Your task to perform on an android device: toggle javascript in the chrome app Image 0: 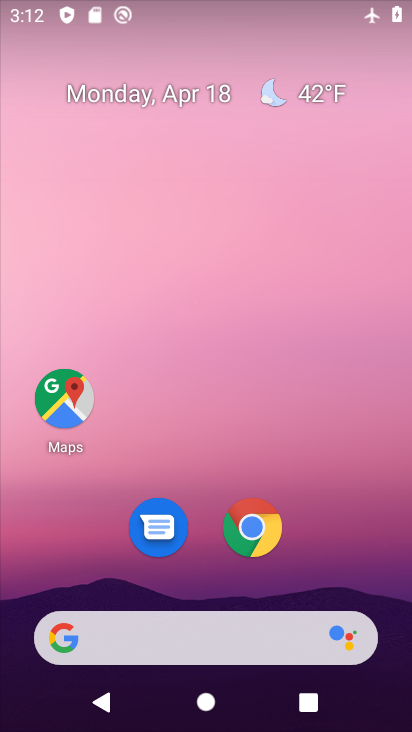
Step 0: click (257, 529)
Your task to perform on an android device: toggle javascript in the chrome app Image 1: 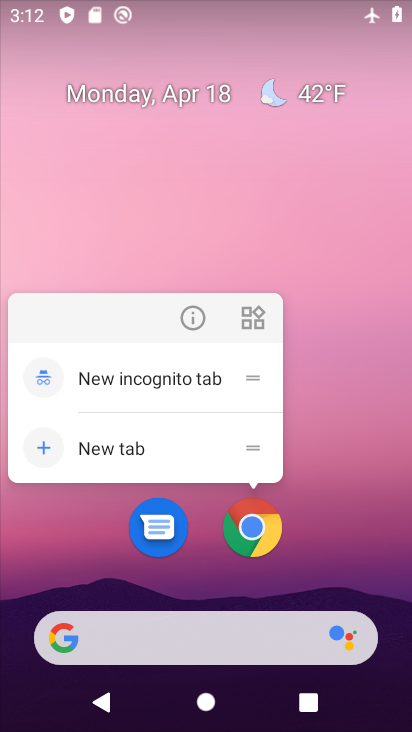
Step 1: click (256, 529)
Your task to perform on an android device: toggle javascript in the chrome app Image 2: 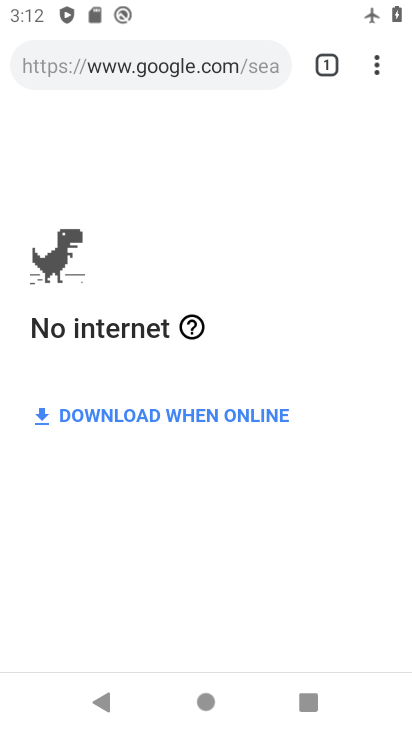
Step 2: click (379, 63)
Your task to perform on an android device: toggle javascript in the chrome app Image 3: 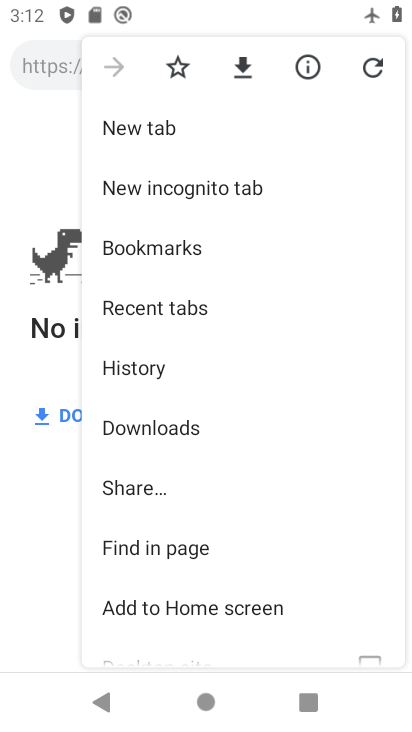
Step 3: drag from (180, 616) to (209, 193)
Your task to perform on an android device: toggle javascript in the chrome app Image 4: 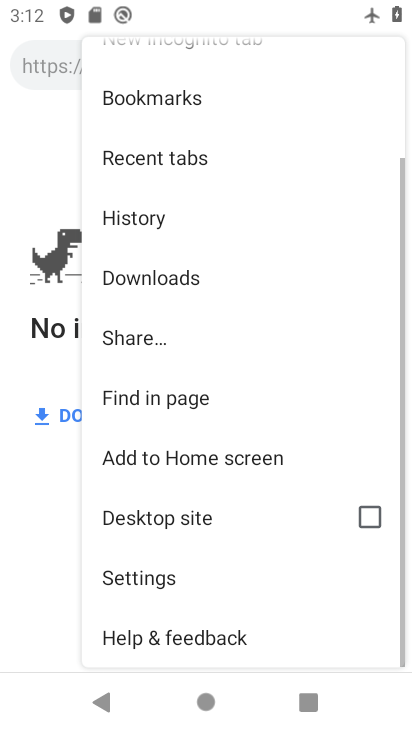
Step 4: click (142, 585)
Your task to perform on an android device: toggle javascript in the chrome app Image 5: 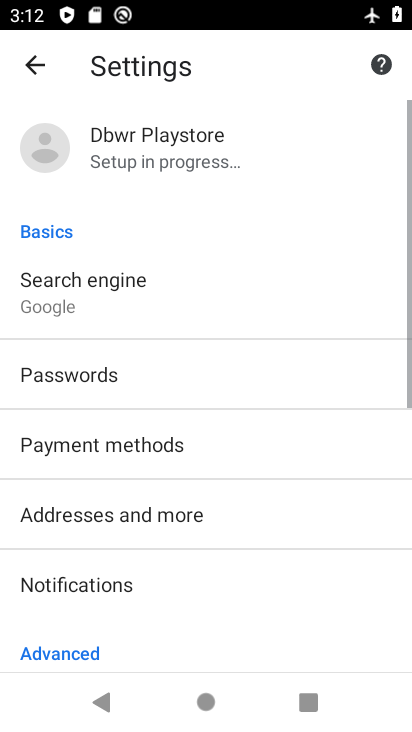
Step 5: drag from (142, 611) to (163, 246)
Your task to perform on an android device: toggle javascript in the chrome app Image 6: 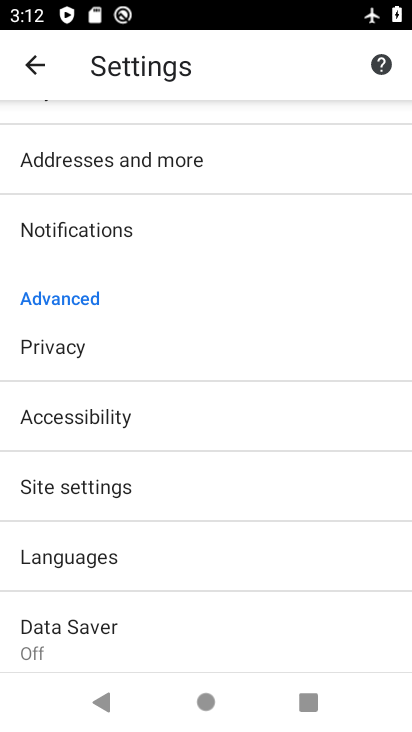
Step 6: click (84, 485)
Your task to perform on an android device: toggle javascript in the chrome app Image 7: 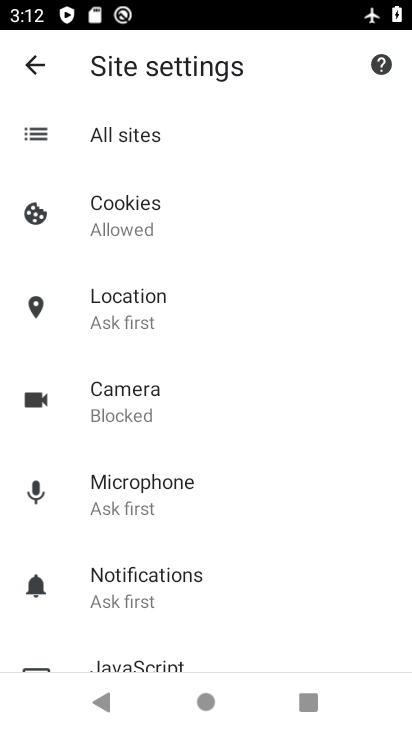
Step 7: click (116, 657)
Your task to perform on an android device: toggle javascript in the chrome app Image 8: 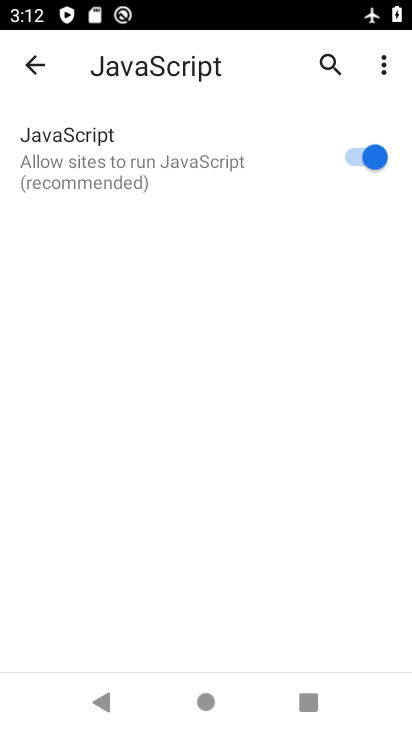
Step 8: click (366, 160)
Your task to perform on an android device: toggle javascript in the chrome app Image 9: 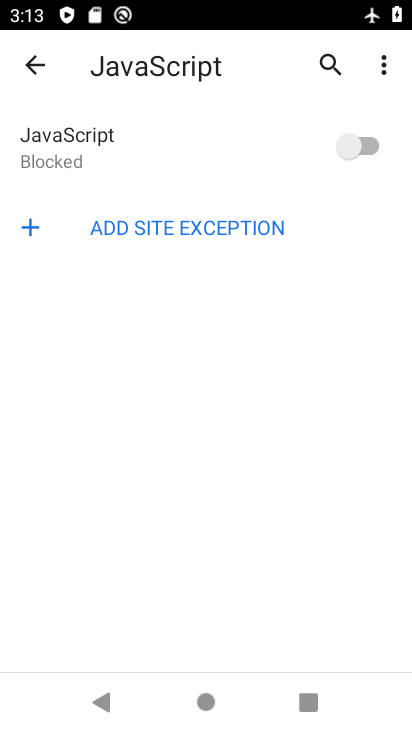
Step 9: task complete